Your task to perform on an android device: Go to calendar. Show me events next week Image 0: 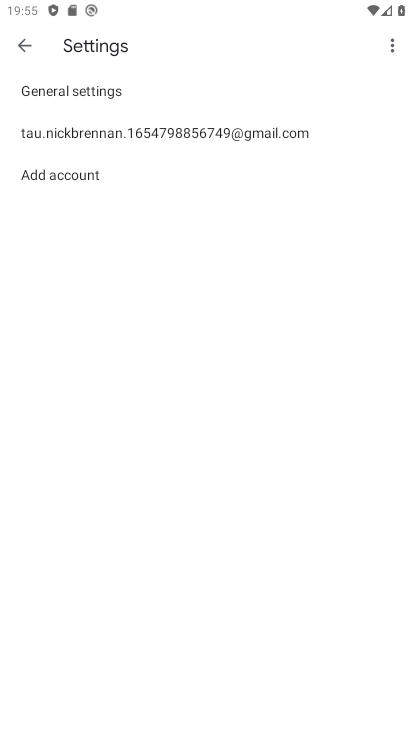
Step 0: press home button
Your task to perform on an android device: Go to calendar. Show me events next week Image 1: 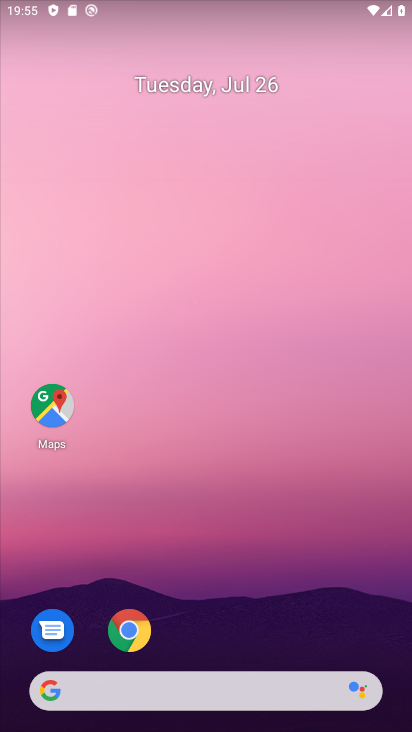
Step 1: drag from (364, 588) to (362, 131)
Your task to perform on an android device: Go to calendar. Show me events next week Image 2: 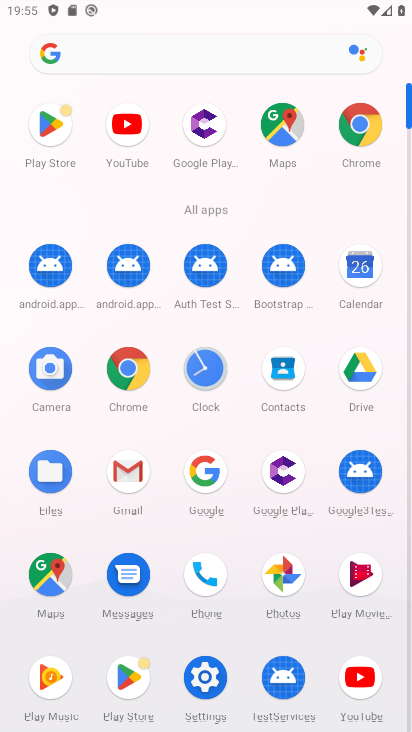
Step 2: click (359, 269)
Your task to perform on an android device: Go to calendar. Show me events next week Image 3: 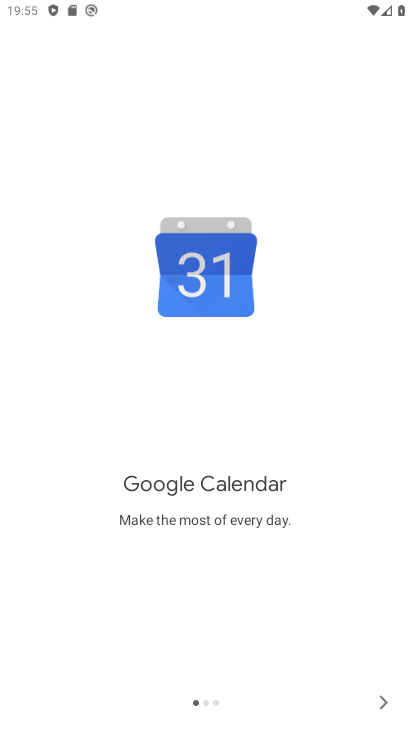
Step 3: click (383, 704)
Your task to perform on an android device: Go to calendar. Show me events next week Image 4: 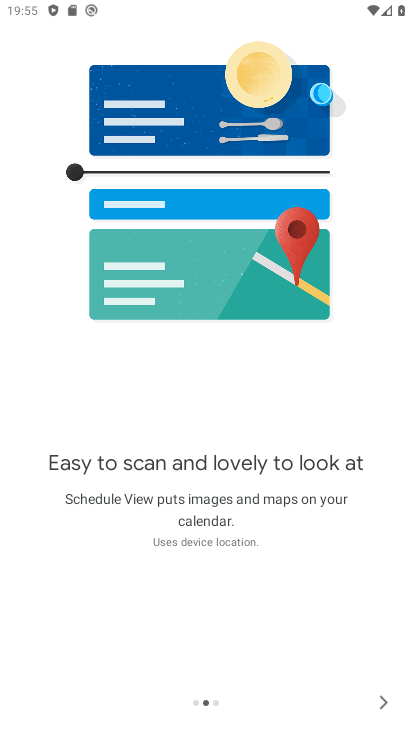
Step 4: click (383, 704)
Your task to perform on an android device: Go to calendar. Show me events next week Image 5: 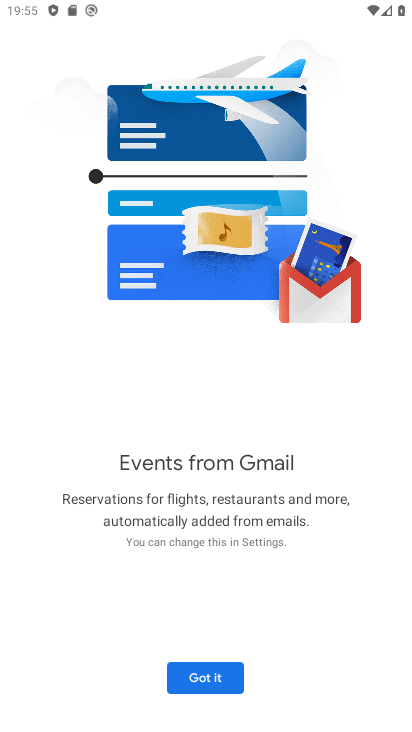
Step 5: click (229, 681)
Your task to perform on an android device: Go to calendar. Show me events next week Image 6: 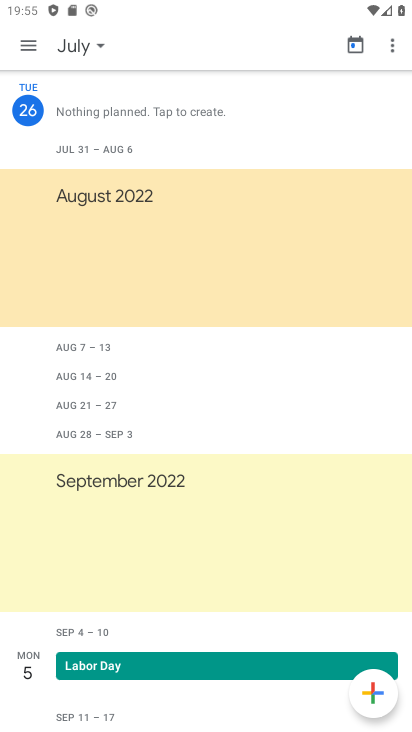
Step 6: click (112, 44)
Your task to perform on an android device: Go to calendar. Show me events next week Image 7: 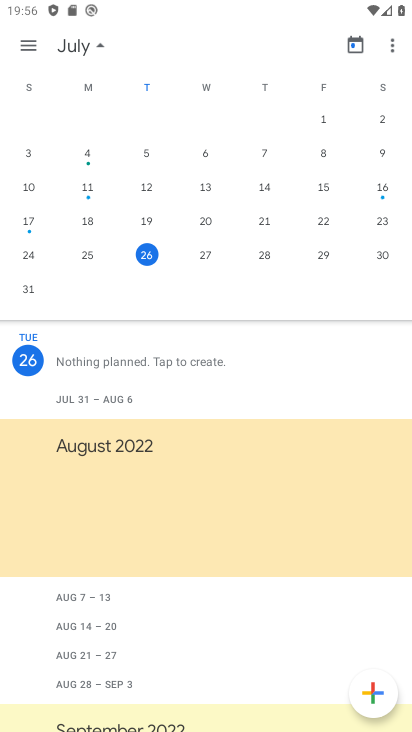
Step 7: task complete